Your task to perform on an android device: Find coffee shops on Maps Image 0: 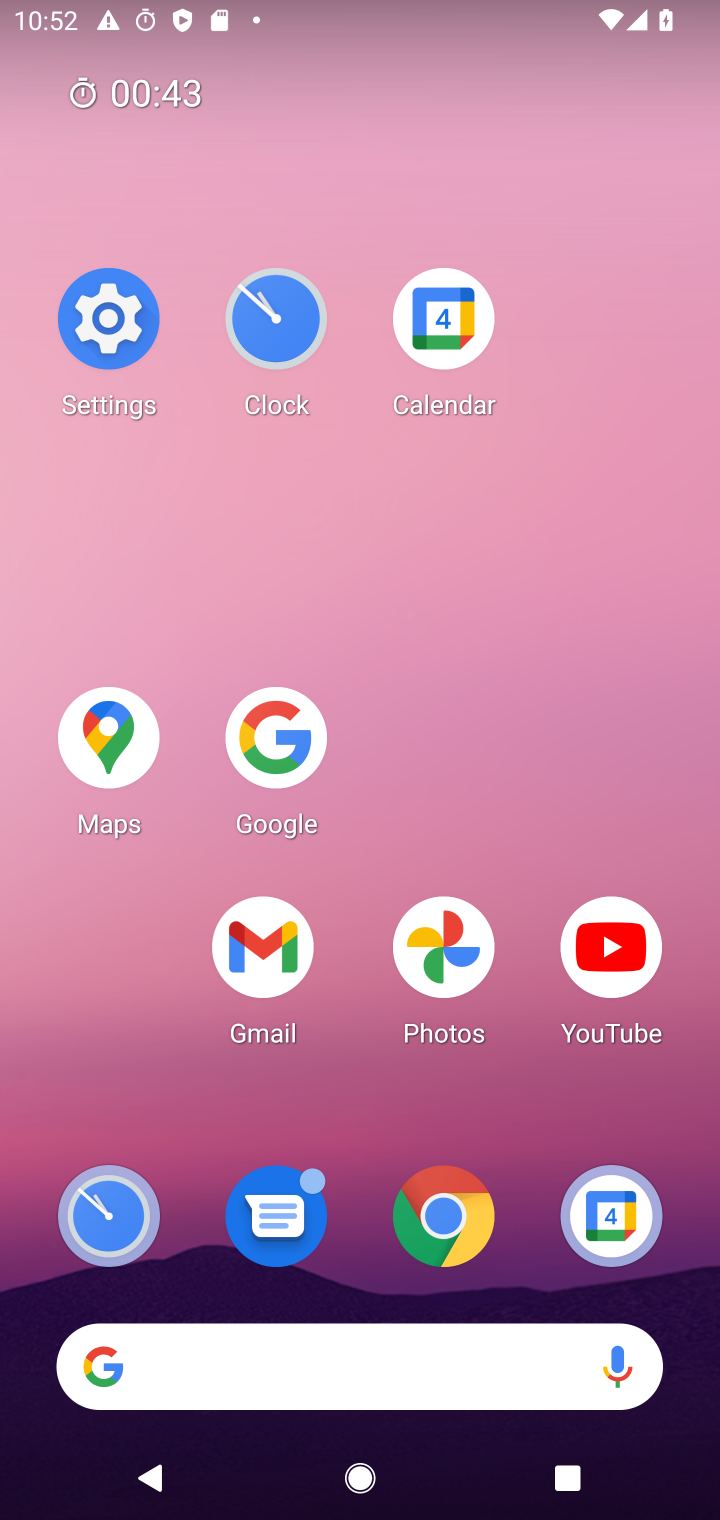
Step 0: click (114, 758)
Your task to perform on an android device: Find coffee shops on Maps Image 1: 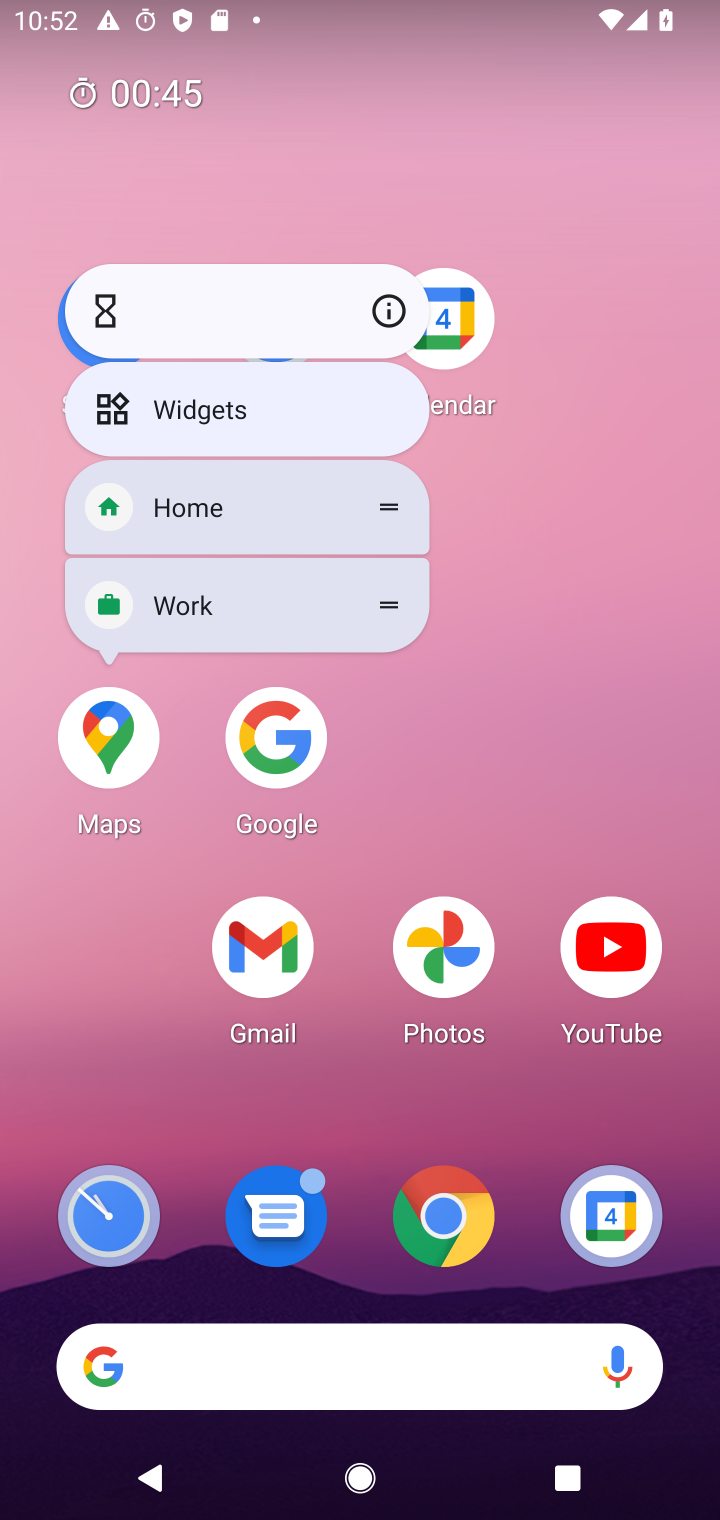
Step 1: click (112, 754)
Your task to perform on an android device: Find coffee shops on Maps Image 2: 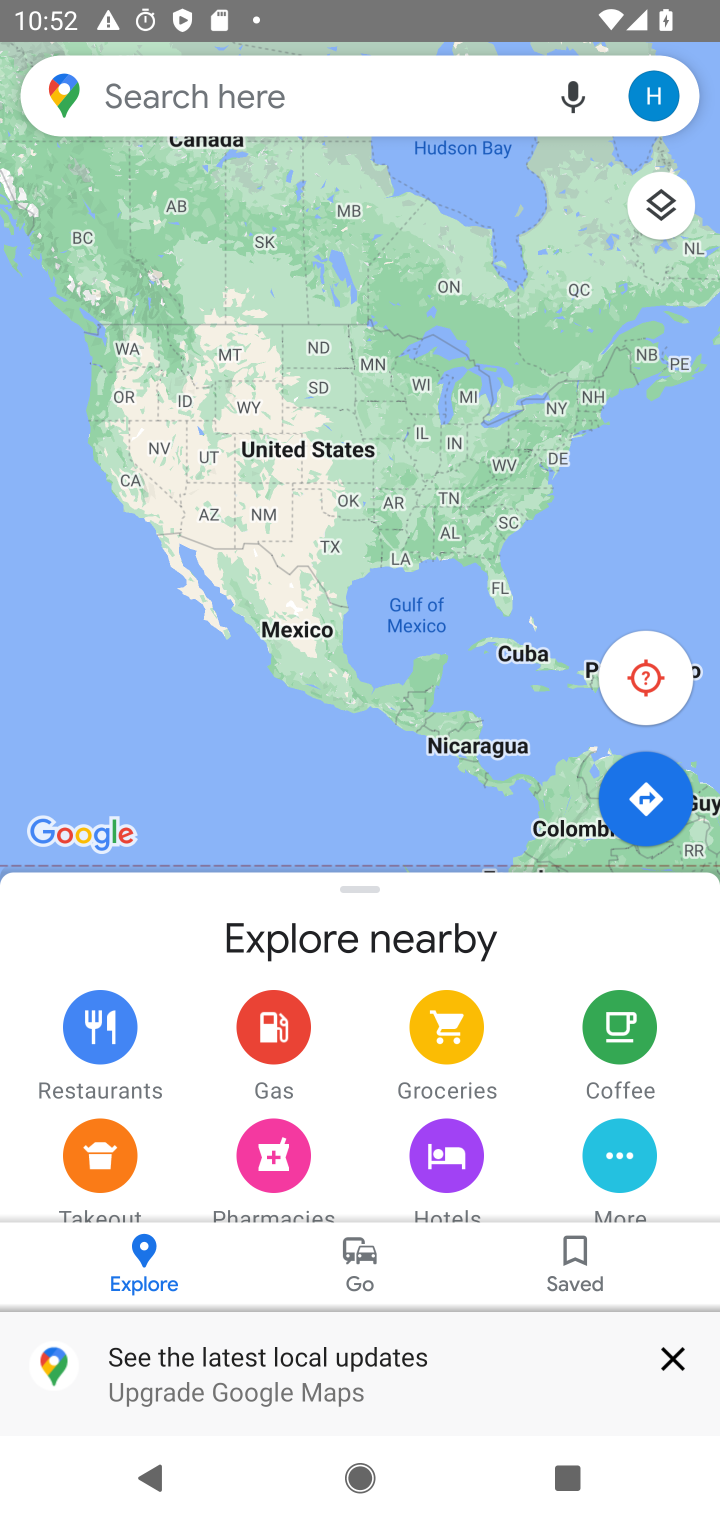
Step 2: click (265, 92)
Your task to perform on an android device: Find coffee shops on Maps Image 3: 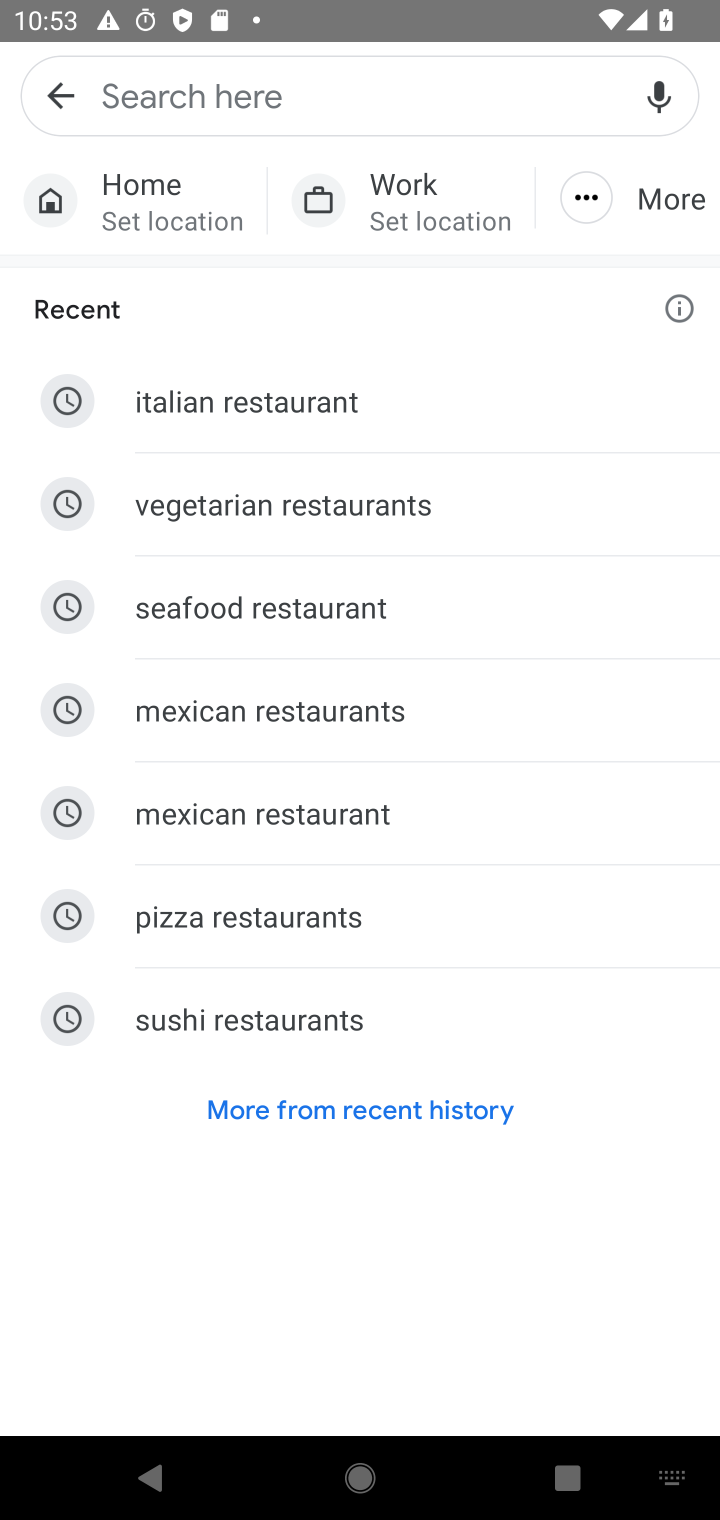
Step 3: type "coffee shops"
Your task to perform on an android device: Find coffee shops on Maps Image 4: 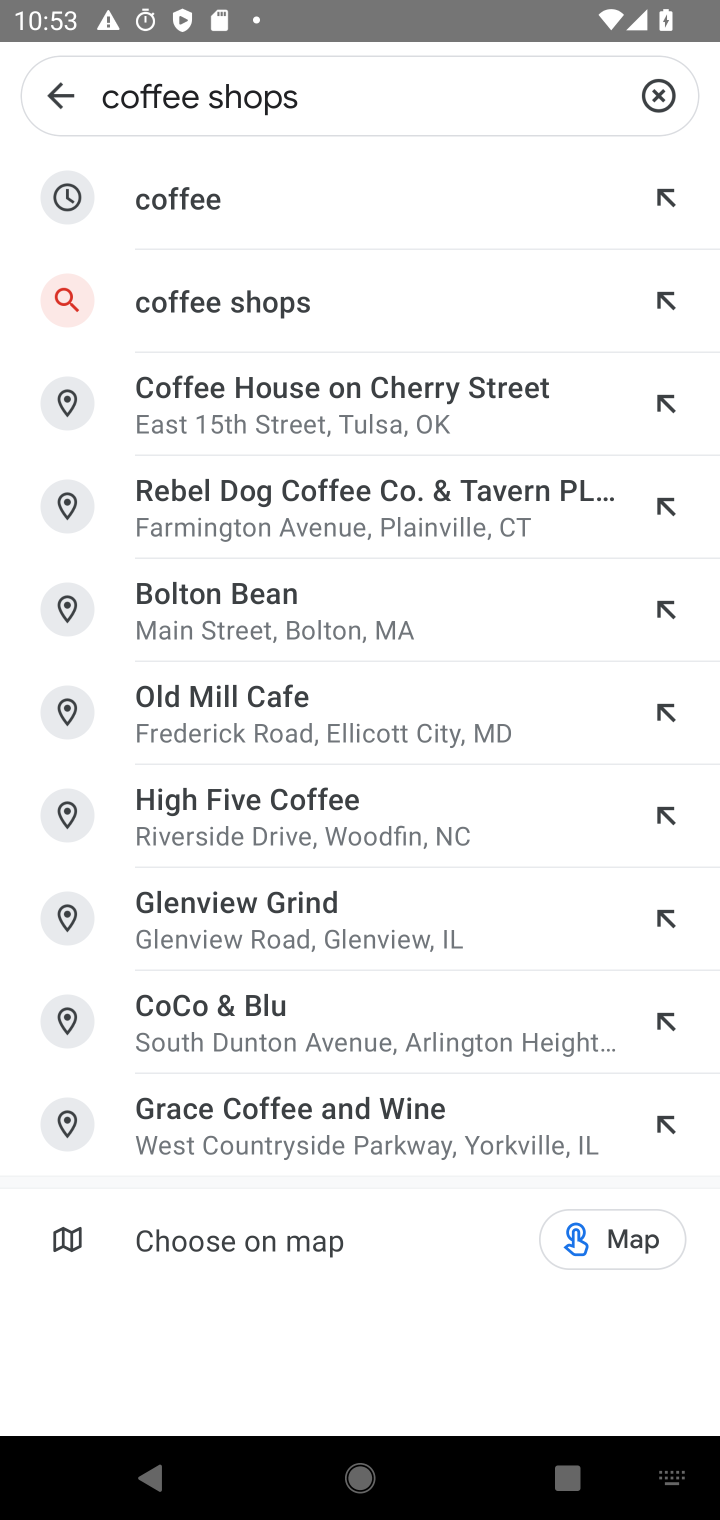
Step 4: click (278, 286)
Your task to perform on an android device: Find coffee shops on Maps Image 5: 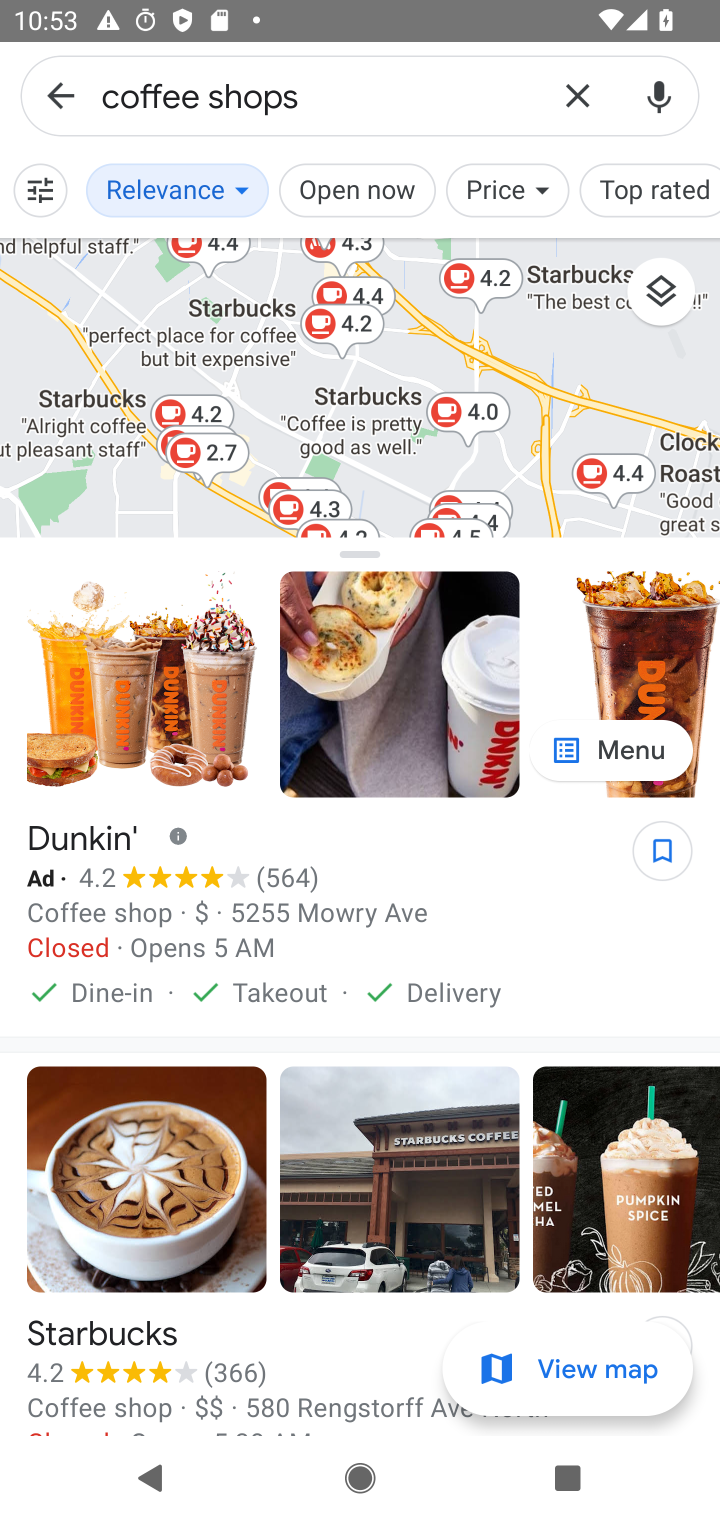
Step 5: task complete